Your task to perform on an android device: Open Google Maps and go to "Timeline" Image 0: 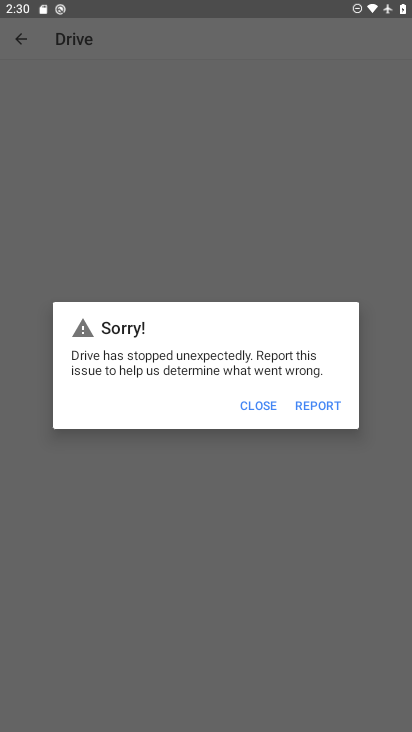
Step 0: press home button
Your task to perform on an android device: Open Google Maps and go to "Timeline" Image 1: 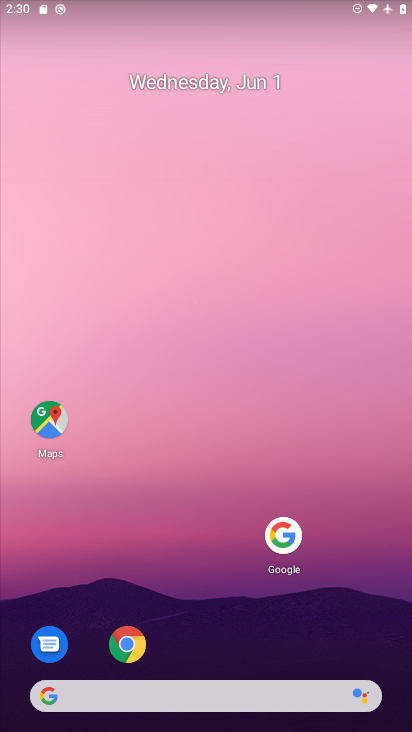
Step 1: click (52, 423)
Your task to perform on an android device: Open Google Maps and go to "Timeline" Image 2: 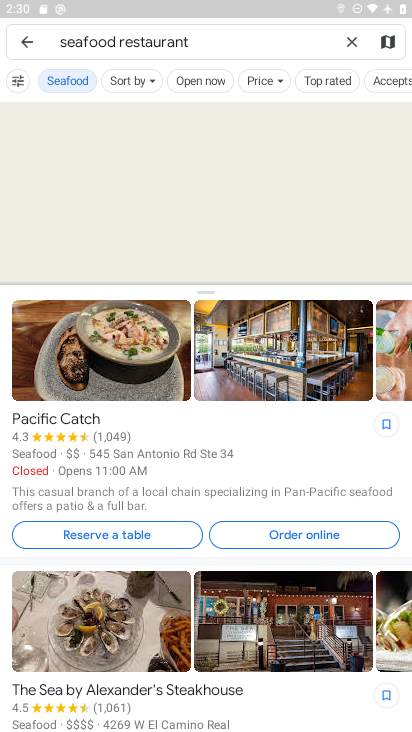
Step 2: click (22, 36)
Your task to perform on an android device: Open Google Maps and go to "Timeline" Image 3: 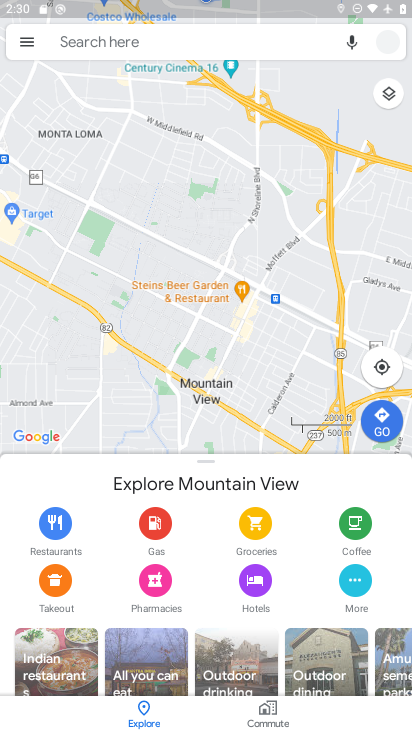
Step 3: click (25, 39)
Your task to perform on an android device: Open Google Maps and go to "Timeline" Image 4: 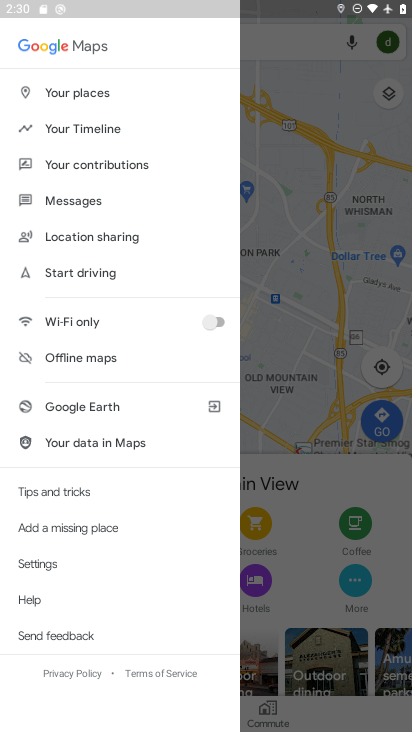
Step 4: click (107, 127)
Your task to perform on an android device: Open Google Maps and go to "Timeline" Image 5: 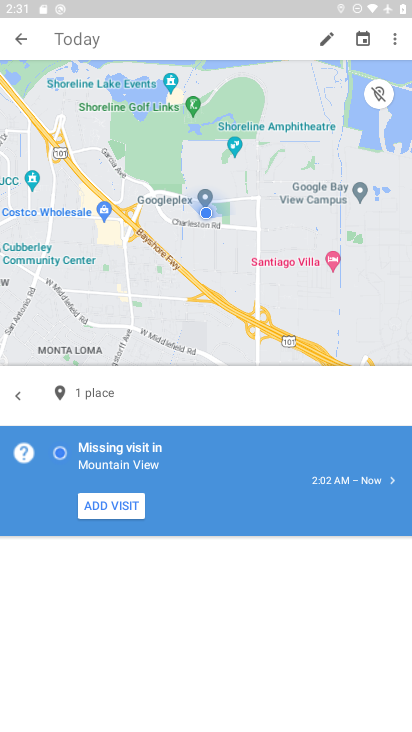
Step 5: task complete